Your task to perform on an android device: Go to Reddit.com Image 0: 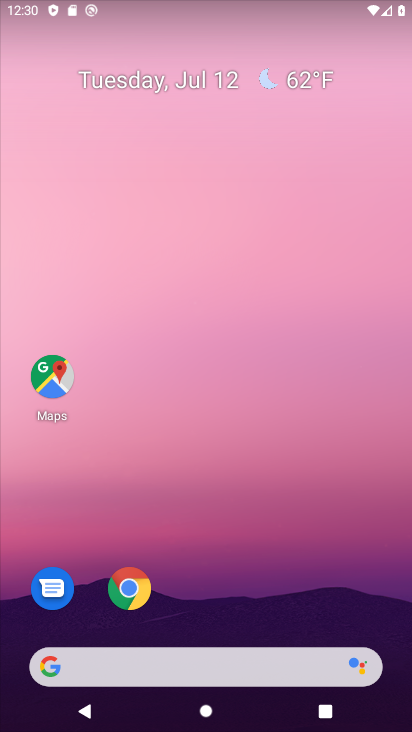
Step 0: click (198, 675)
Your task to perform on an android device: Go to Reddit.com Image 1: 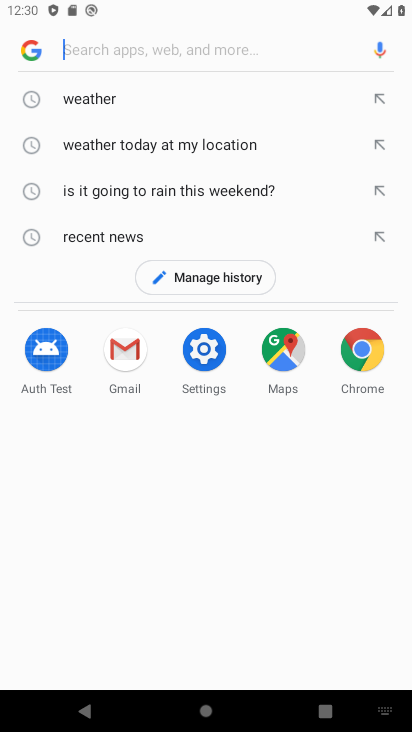
Step 1: type "reddit.com"
Your task to perform on an android device: Go to Reddit.com Image 2: 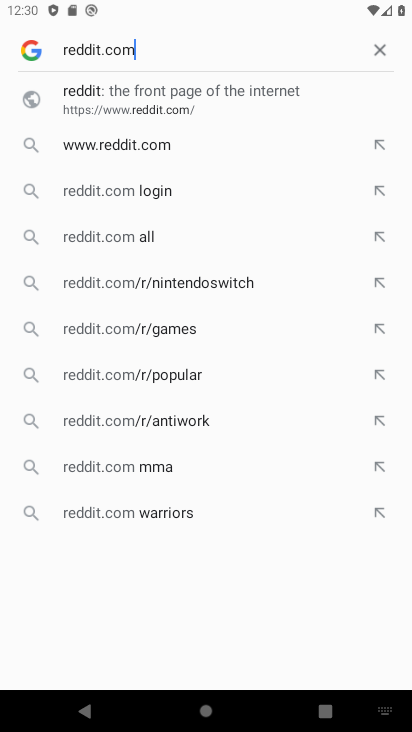
Step 2: click (129, 95)
Your task to perform on an android device: Go to Reddit.com Image 3: 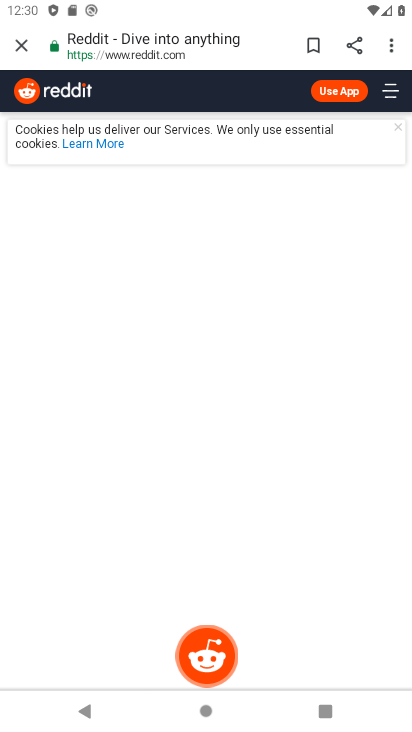
Step 3: task complete